Your task to perform on an android device: check storage Image 0: 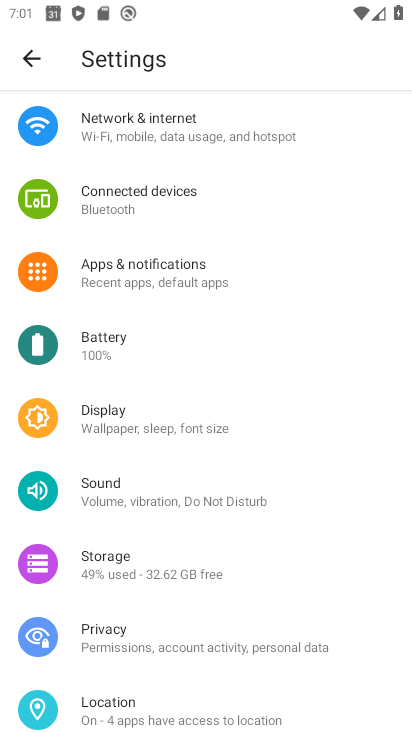
Step 0: click (107, 555)
Your task to perform on an android device: check storage Image 1: 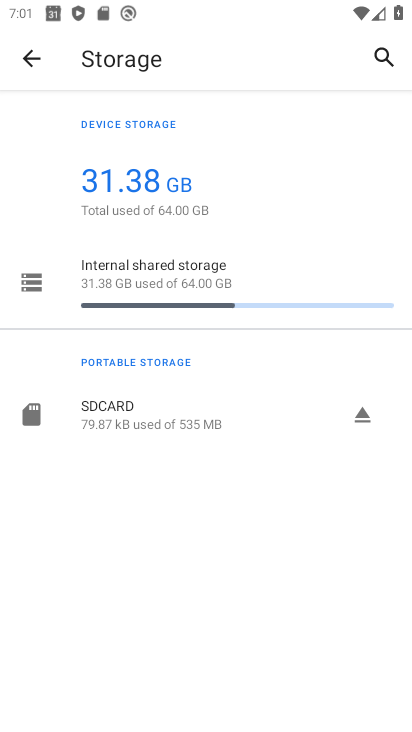
Step 1: task complete